Your task to perform on an android device: Add "apple airpods" to the cart on costco.com, then select checkout. Image 0: 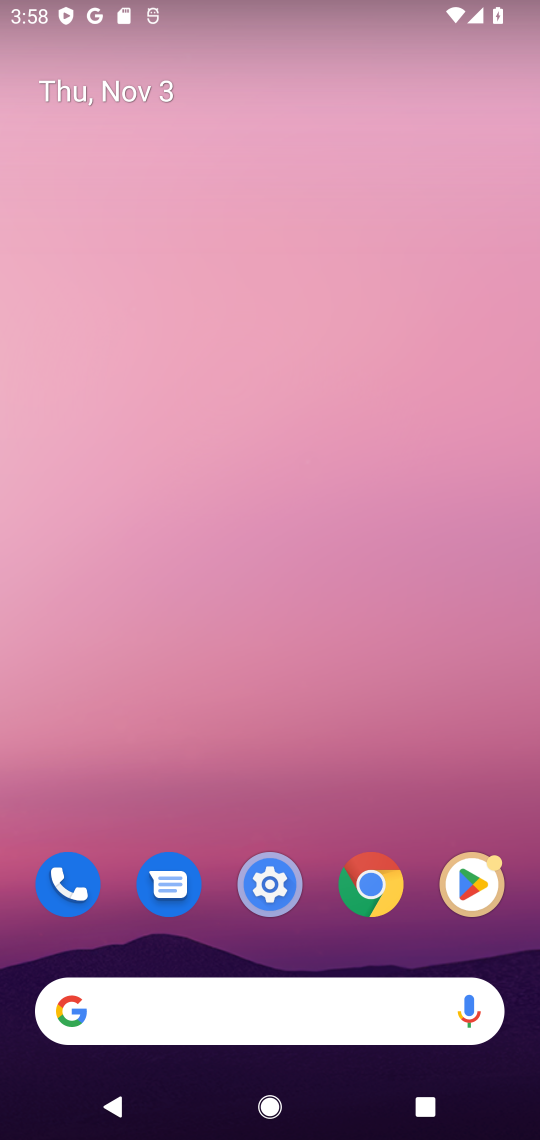
Step 0: press home button
Your task to perform on an android device: Add "apple airpods" to the cart on costco.com, then select checkout. Image 1: 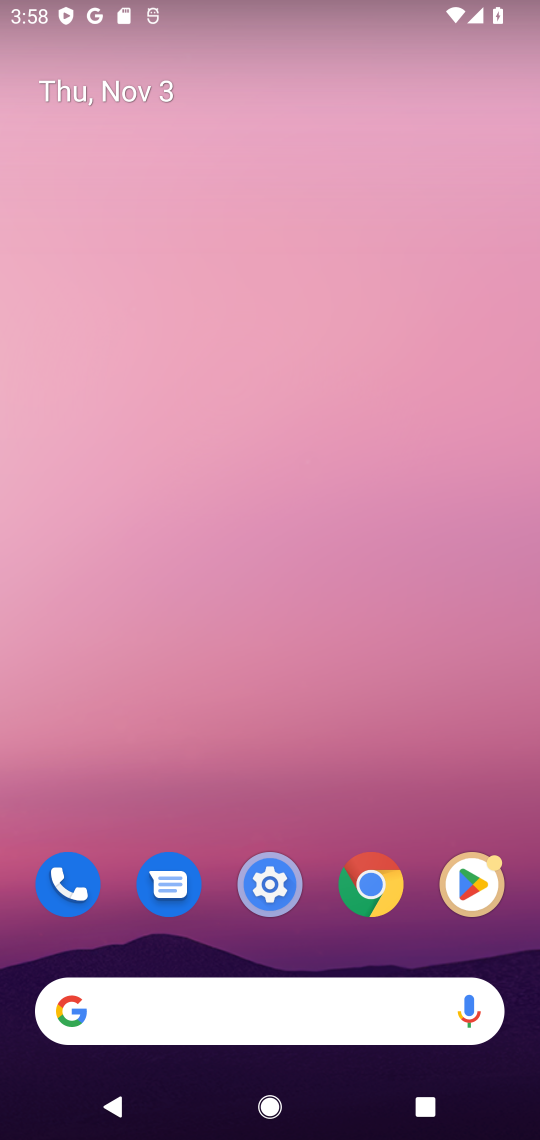
Step 1: click (110, 1007)
Your task to perform on an android device: Add "apple airpods" to the cart on costco.com, then select checkout. Image 2: 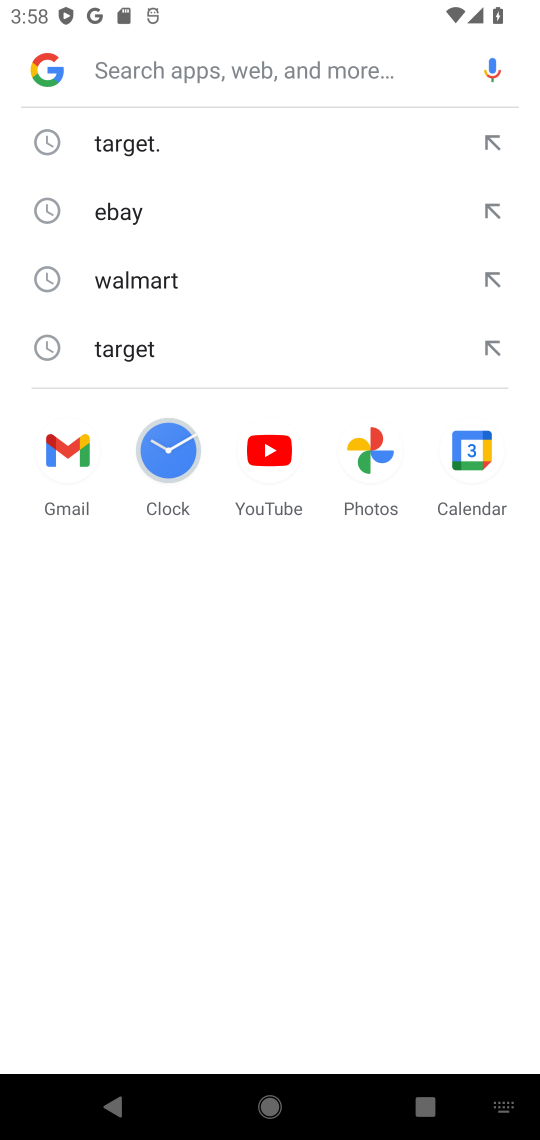
Step 2: type "costco.com"
Your task to perform on an android device: Add "apple airpods" to the cart on costco.com, then select checkout. Image 3: 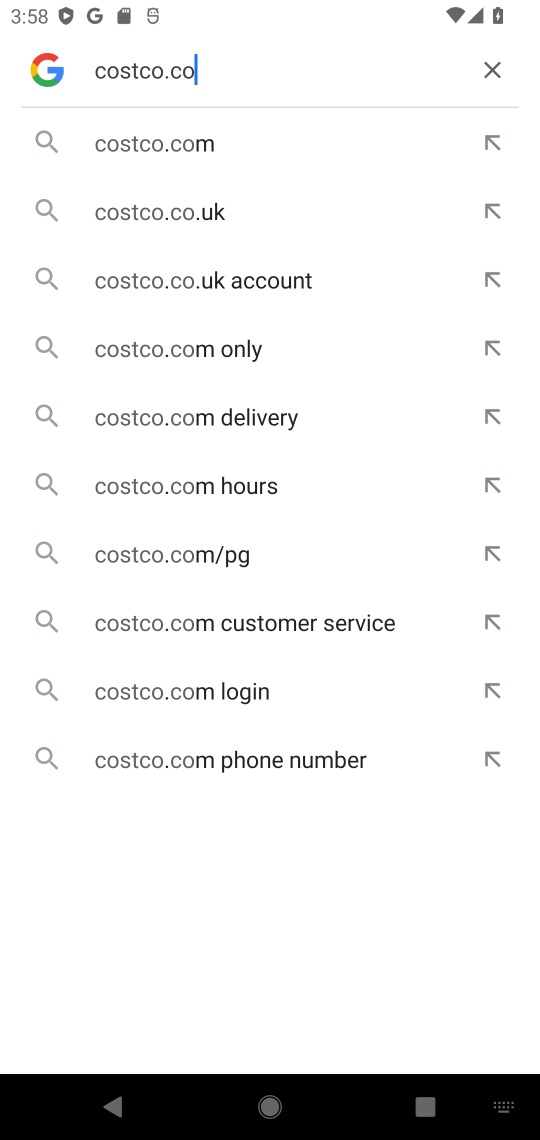
Step 3: press enter
Your task to perform on an android device: Add "apple airpods" to the cart on costco.com, then select checkout. Image 4: 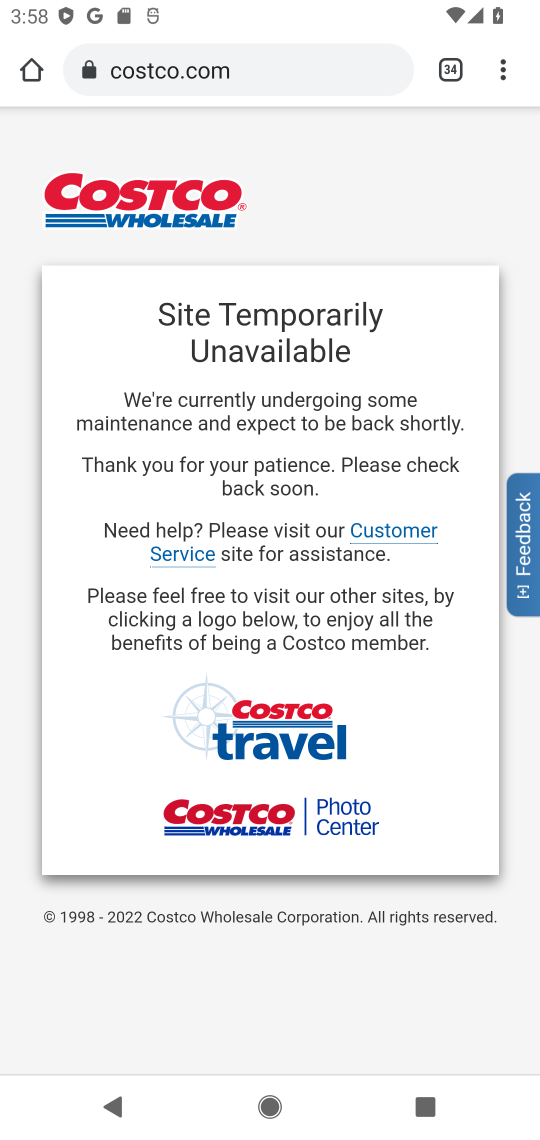
Step 4: task complete